Your task to perform on an android device: delete browsing data in the chrome app Image 0: 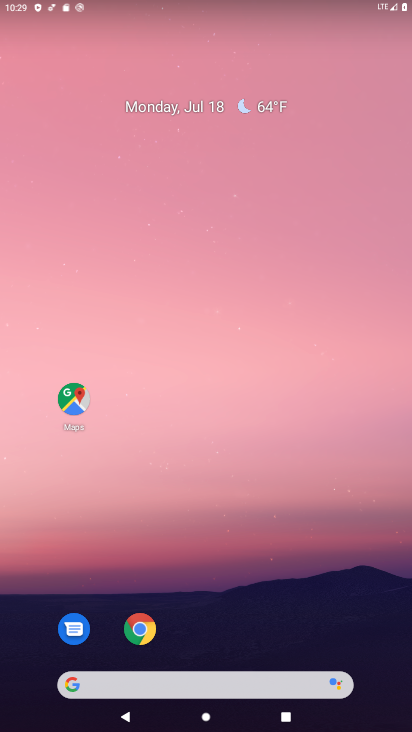
Step 0: click (410, 439)
Your task to perform on an android device: delete browsing data in the chrome app Image 1: 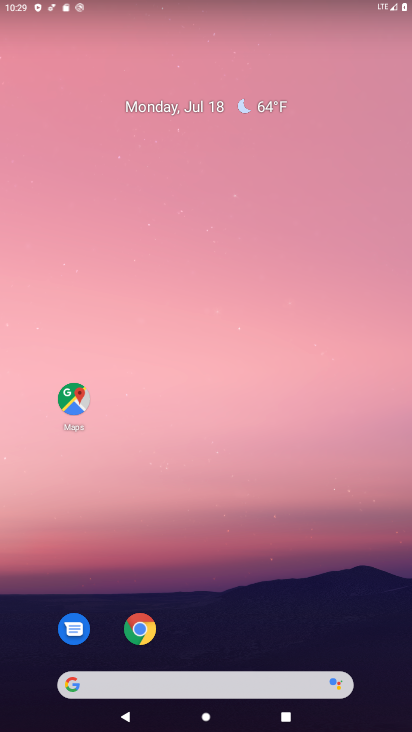
Step 1: click (144, 619)
Your task to perform on an android device: delete browsing data in the chrome app Image 2: 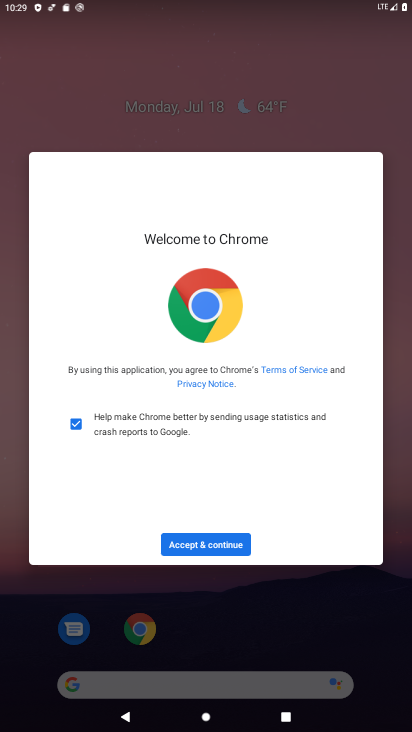
Step 2: click (213, 539)
Your task to perform on an android device: delete browsing data in the chrome app Image 3: 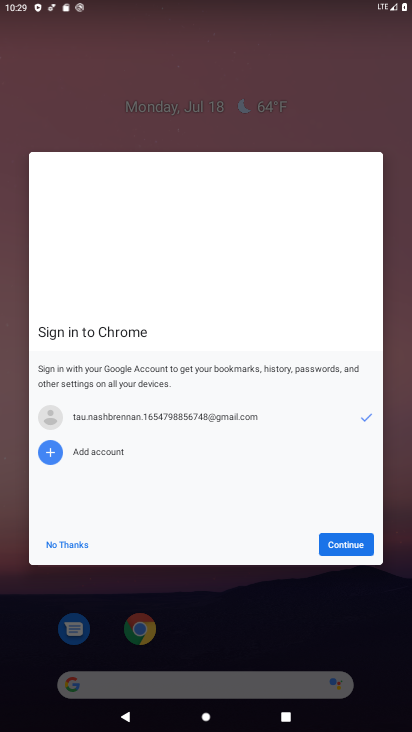
Step 3: click (342, 544)
Your task to perform on an android device: delete browsing data in the chrome app Image 4: 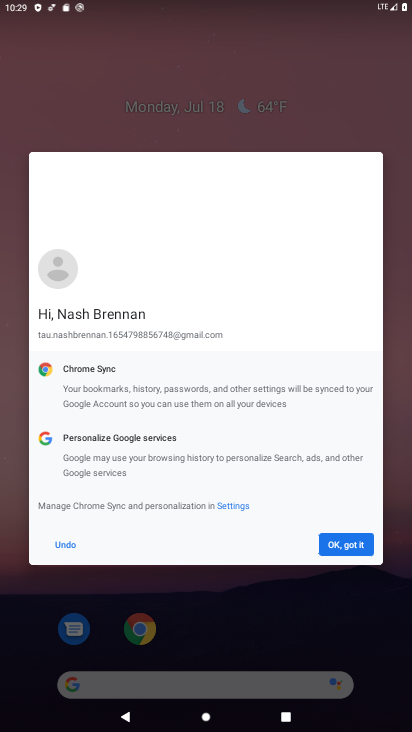
Step 4: click (342, 544)
Your task to perform on an android device: delete browsing data in the chrome app Image 5: 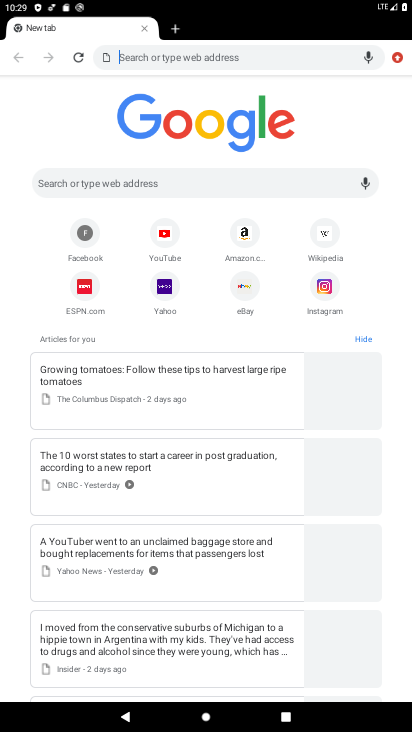
Step 5: click (394, 61)
Your task to perform on an android device: delete browsing data in the chrome app Image 6: 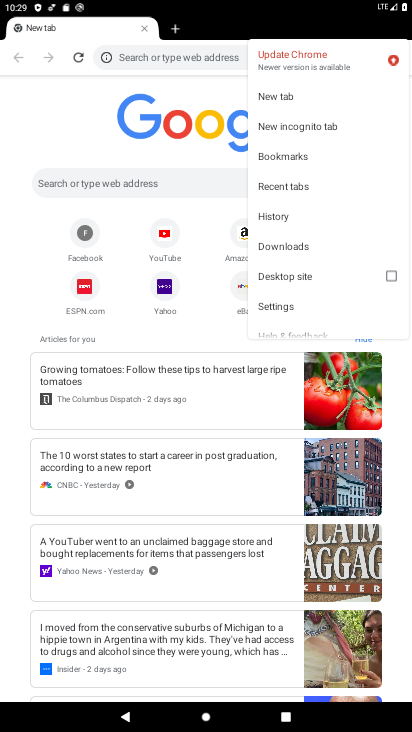
Step 6: click (284, 212)
Your task to perform on an android device: delete browsing data in the chrome app Image 7: 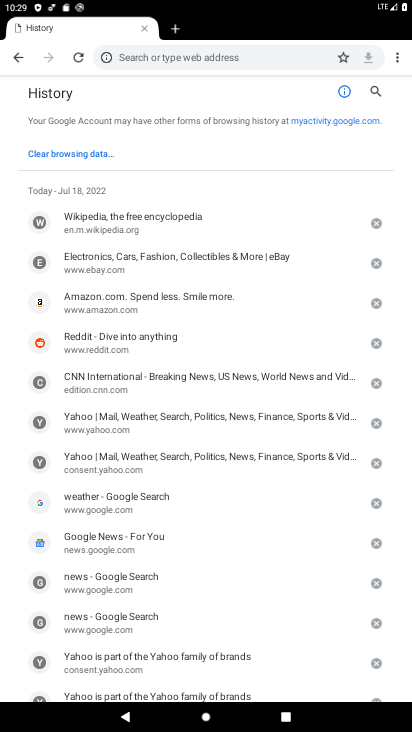
Step 7: click (77, 151)
Your task to perform on an android device: delete browsing data in the chrome app Image 8: 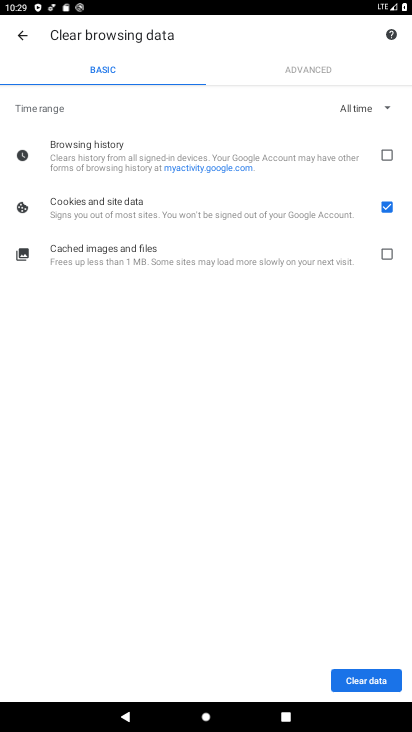
Step 8: click (380, 679)
Your task to perform on an android device: delete browsing data in the chrome app Image 9: 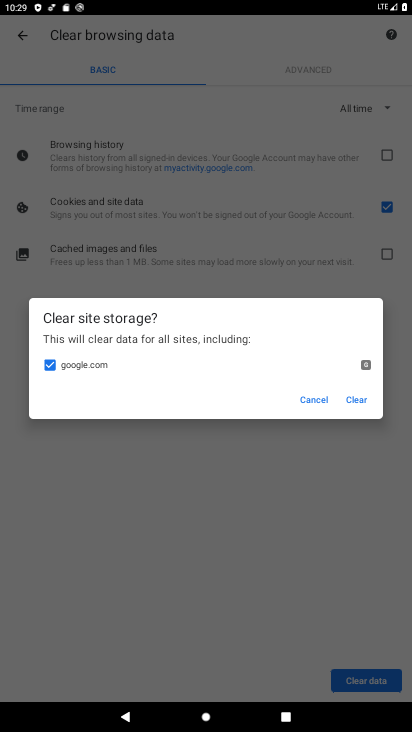
Step 9: click (304, 399)
Your task to perform on an android device: delete browsing data in the chrome app Image 10: 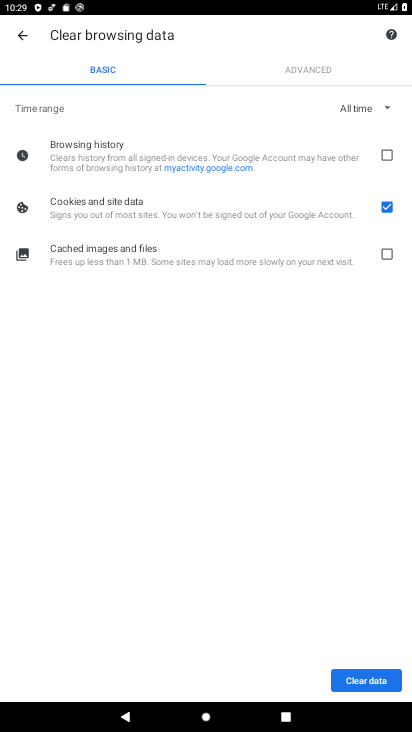
Step 10: click (390, 162)
Your task to perform on an android device: delete browsing data in the chrome app Image 11: 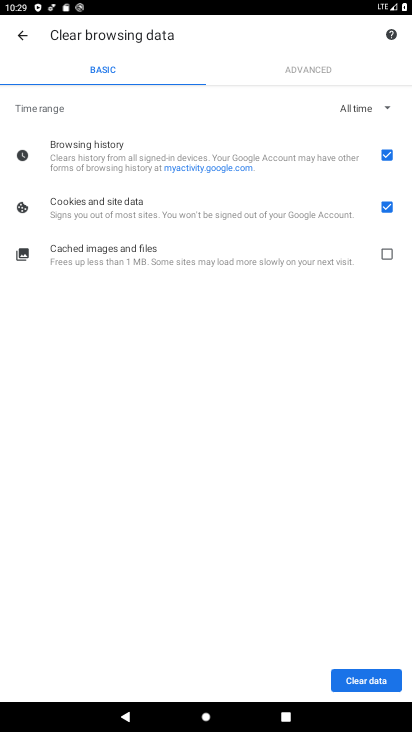
Step 11: click (371, 678)
Your task to perform on an android device: delete browsing data in the chrome app Image 12: 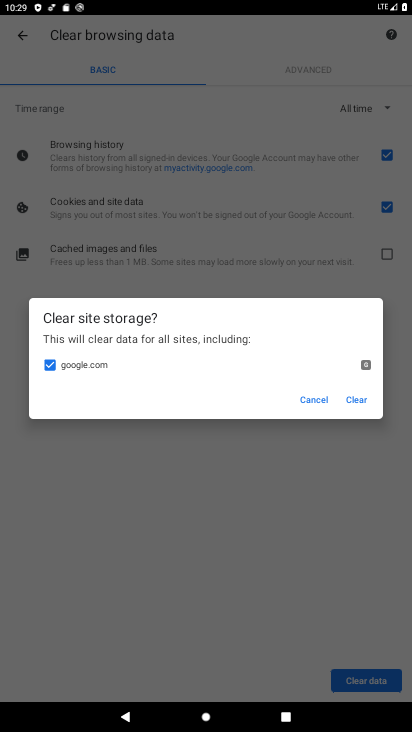
Step 12: click (360, 395)
Your task to perform on an android device: delete browsing data in the chrome app Image 13: 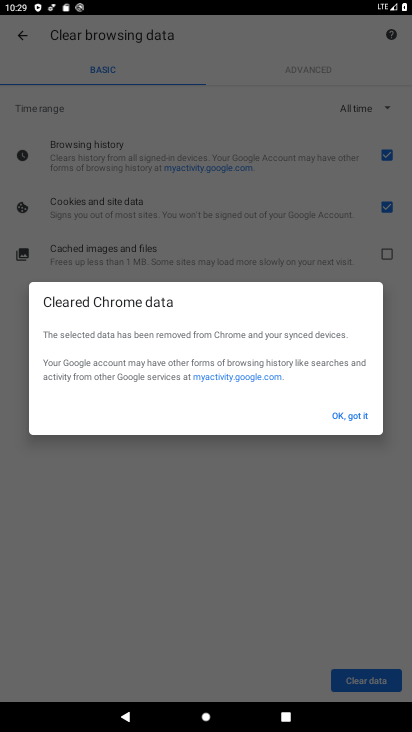
Step 13: click (338, 415)
Your task to perform on an android device: delete browsing data in the chrome app Image 14: 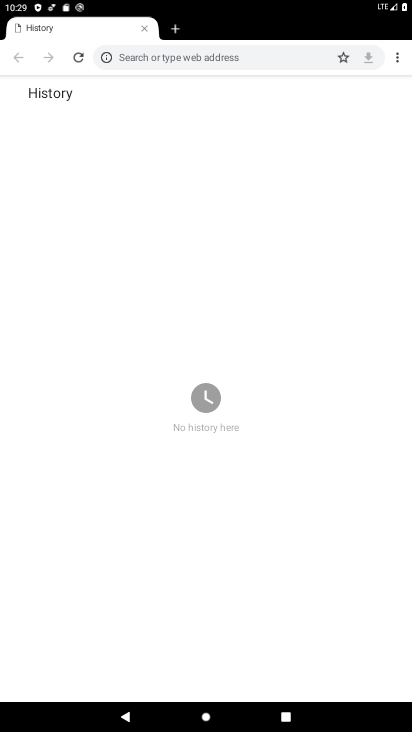
Step 14: task complete